Your task to perform on an android device: add a contact Image 0: 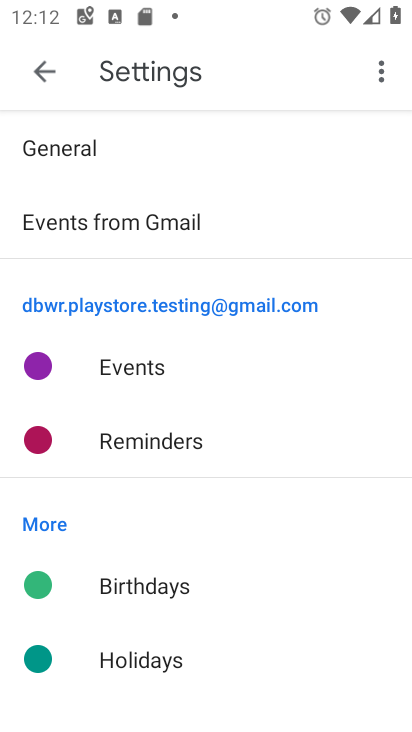
Step 0: press home button
Your task to perform on an android device: add a contact Image 1: 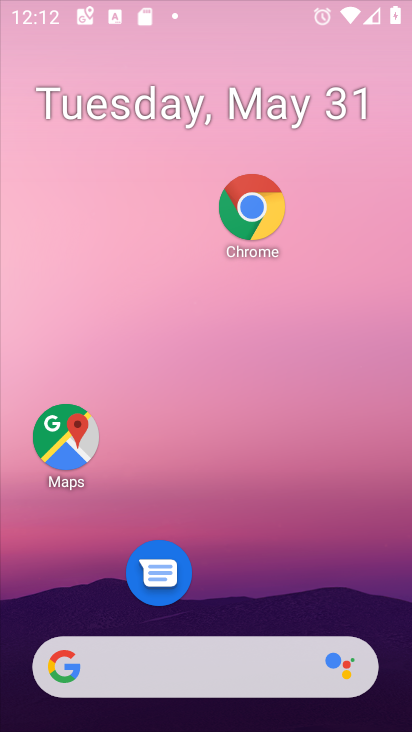
Step 1: drag from (183, 564) to (258, 98)
Your task to perform on an android device: add a contact Image 2: 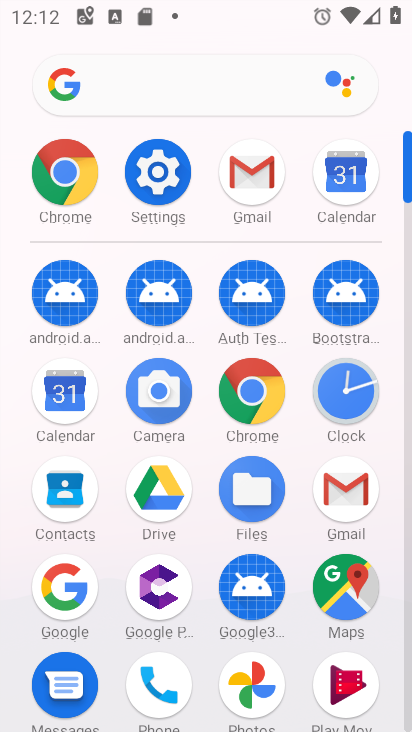
Step 2: click (61, 493)
Your task to perform on an android device: add a contact Image 3: 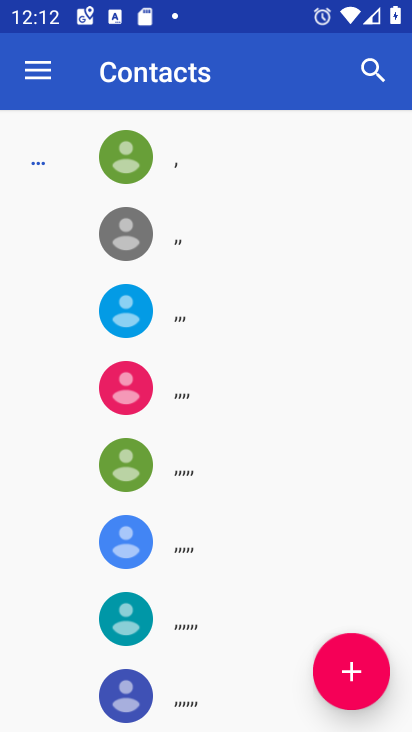
Step 3: click (356, 690)
Your task to perform on an android device: add a contact Image 4: 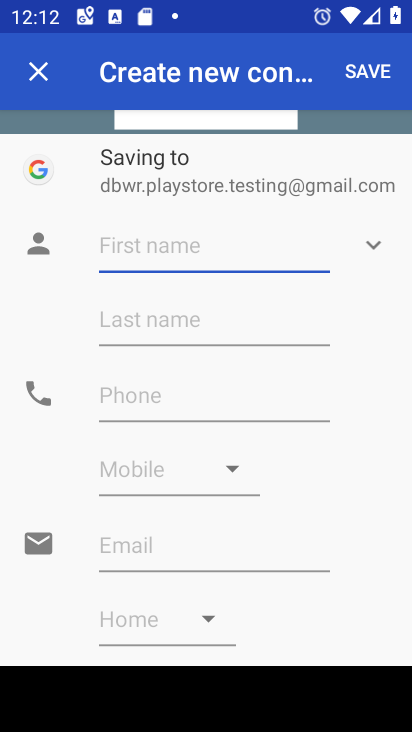
Step 4: type "gubjhhkjh"
Your task to perform on an android device: add a contact Image 5: 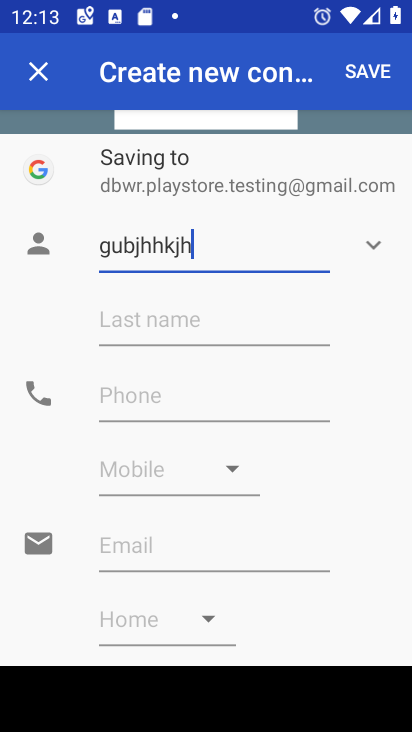
Step 5: click (191, 415)
Your task to perform on an android device: add a contact Image 6: 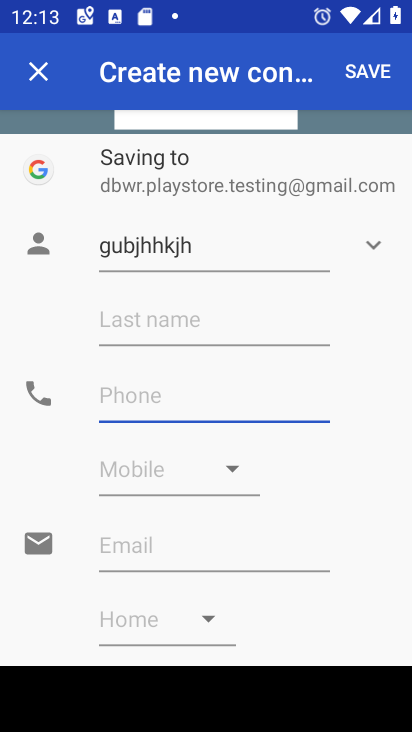
Step 6: type "898787576"
Your task to perform on an android device: add a contact Image 7: 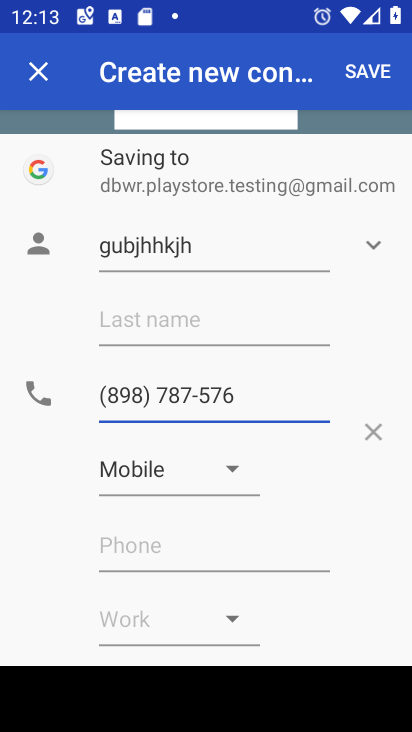
Step 7: type "8"
Your task to perform on an android device: add a contact Image 8: 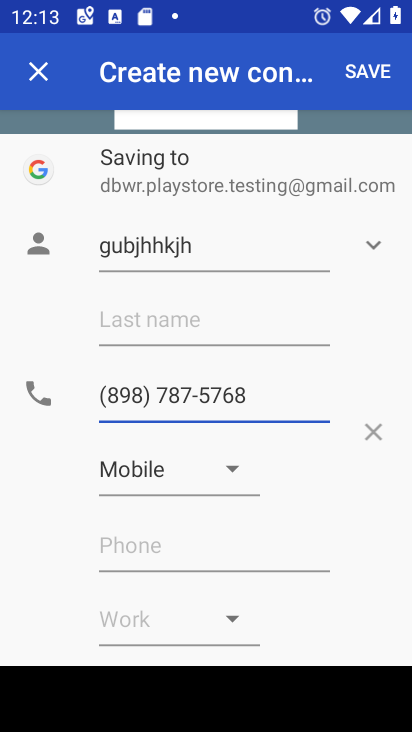
Step 8: click (366, 80)
Your task to perform on an android device: add a contact Image 9: 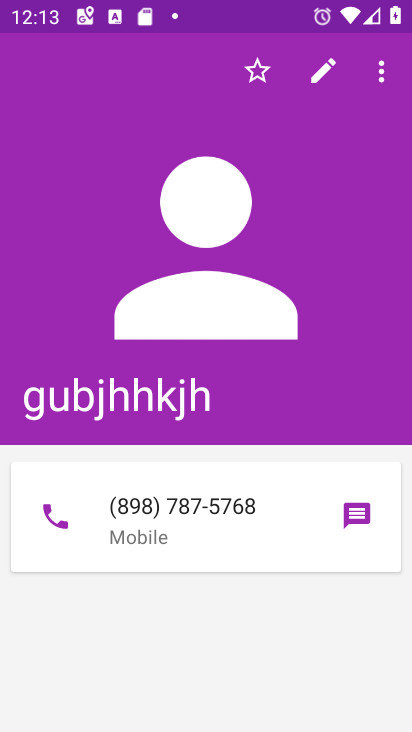
Step 9: task complete